Your task to perform on an android device: Open Chrome and go to settings Image 0: 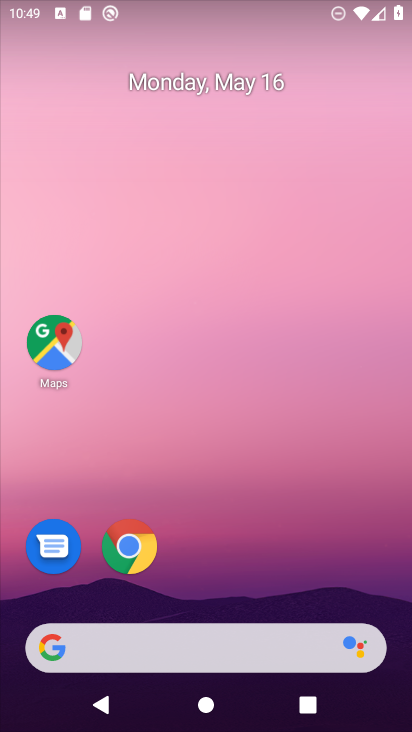
Step 0: click (115, 549)
Your task to perform on an android device: Open Chrome and go to settings Image 1: 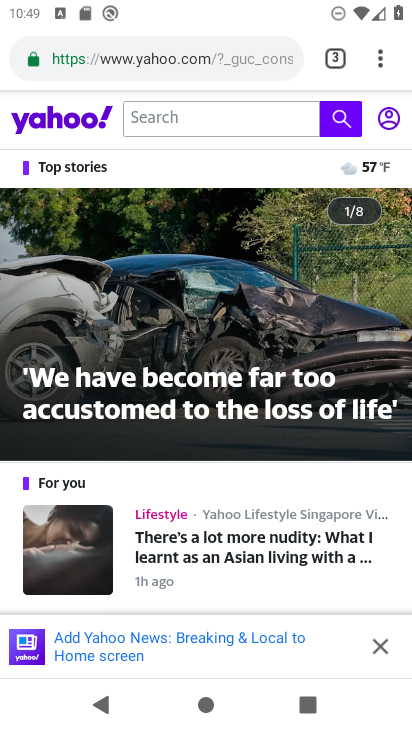
Step 1: click (384, 59)
Your task to perform on an android device: Open Chrome and go to settings Image 2: 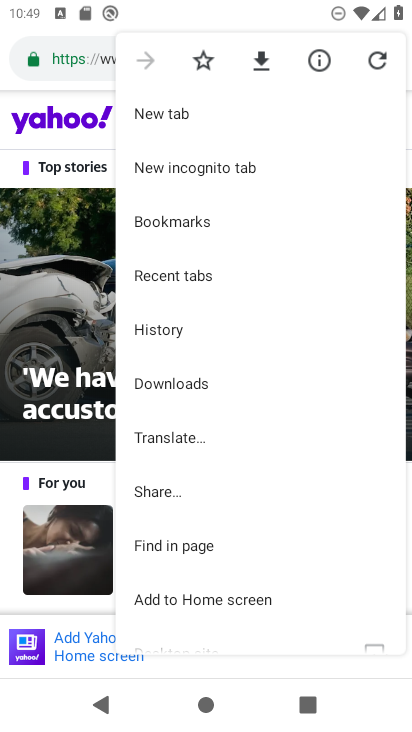
Step 2: drag from (191, 588) to (250, 111)
Your task to perform on an android device: Open Chrome and go to settings Image 3: 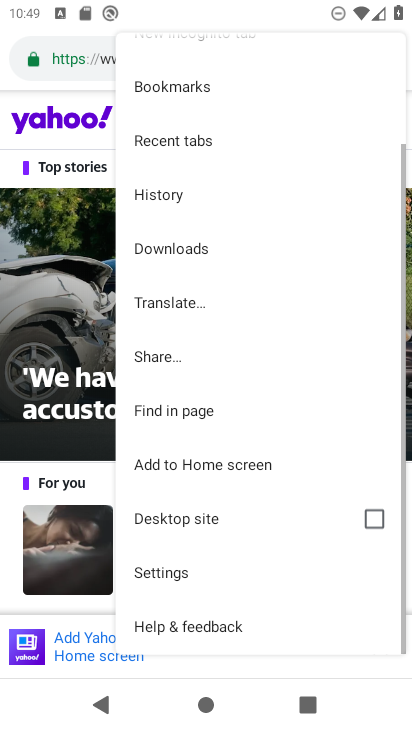
Step 3: click (163, 582)
Your task to perform on an android device: Open Chrome and go to settings Image 4: 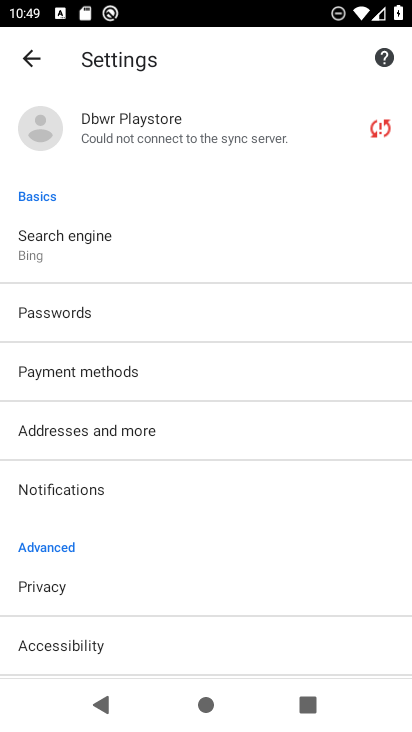
Step 4: task complete